Your task to perform on an android device: snooze an email in the gmail app Image 0: 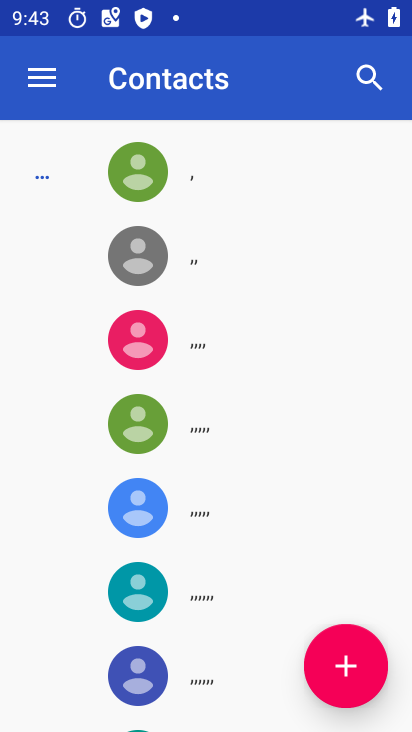
Step 0: press home button
Your task to perform on an android device: snooze an email in the gmail app Image 1: 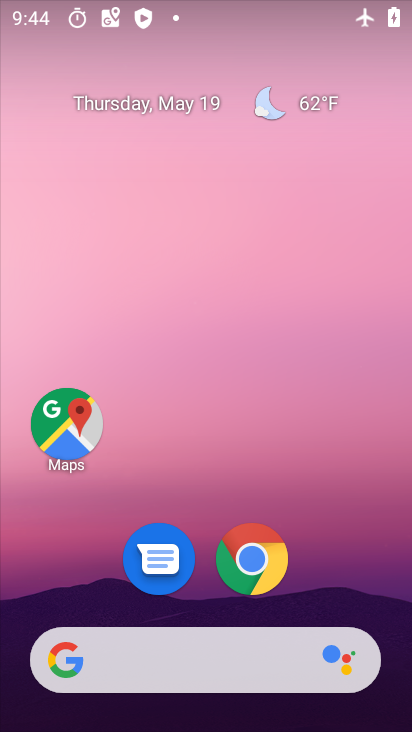
Step 1: drag from (379, 563) to (157, 163)
Your task to perform on an android device: snooze an email in the gmail app Image 2: 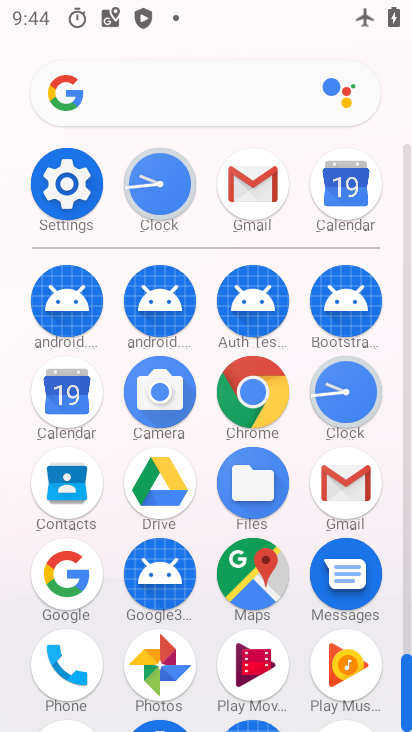
Step 2: click (235, 194)
Your task to perform on an android device: snooze an email in the gmail app Image 3: 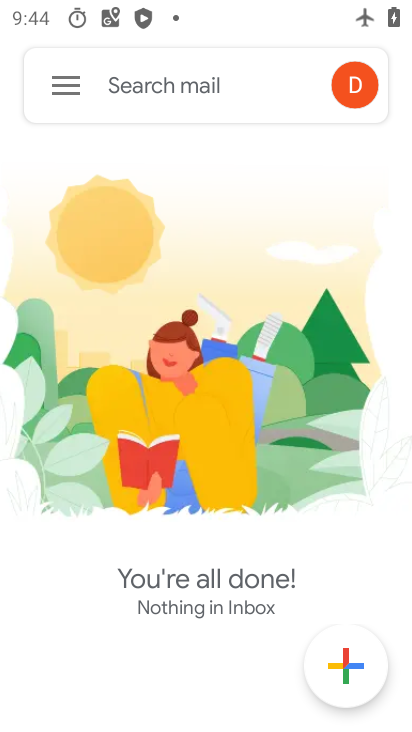
Step 3: click (64, 69)
Your task to perform on an android device: snooze an email in the gmail app Image 4: 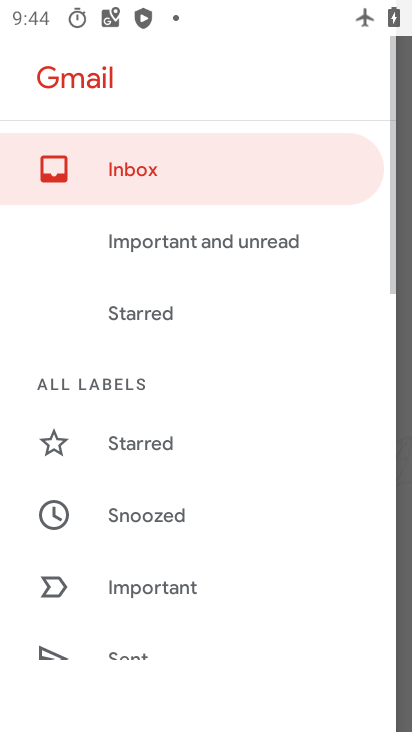
Step 4: drag from (130, 588) to (243, 174)
Your task to perform on an android device: snooze an email in the gmail app Image 5: 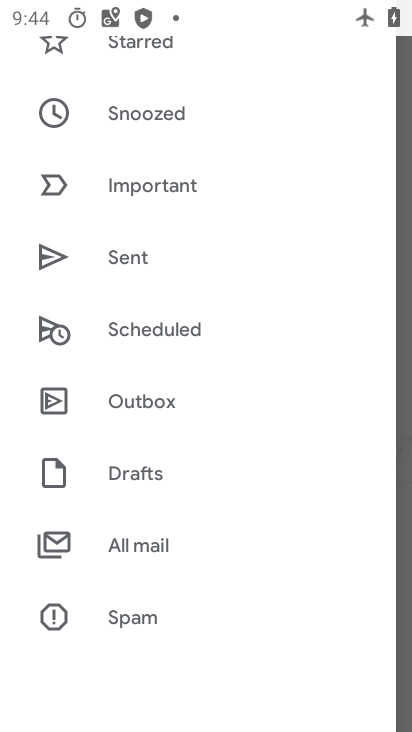
Step 5: click (174, 538)
Your task to perform on an android device: snooze an email in the gmail app Image 6: 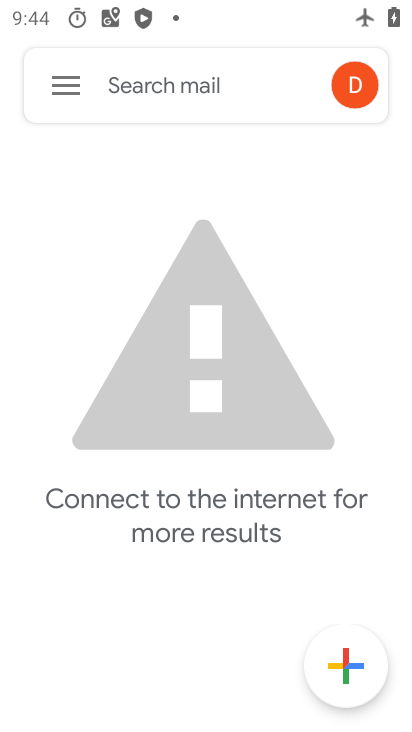
Step 6: task complete